Your task to perform on an android device: Open Chrome and go to settings Image 0: 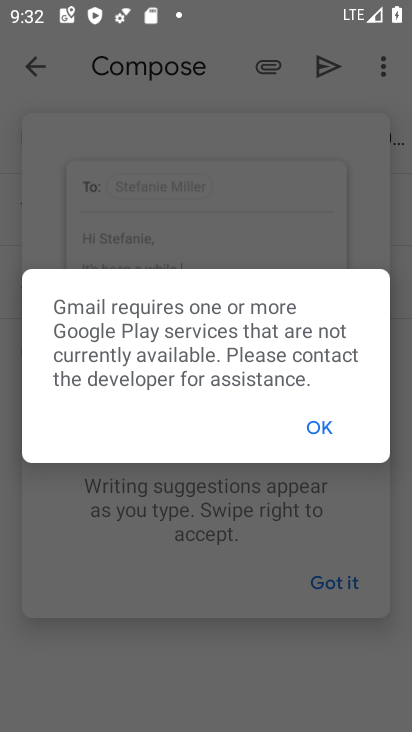
Step 0: click (318, 423)
Your task to perform on an android device: Open Chrome and go to settings Image 1: 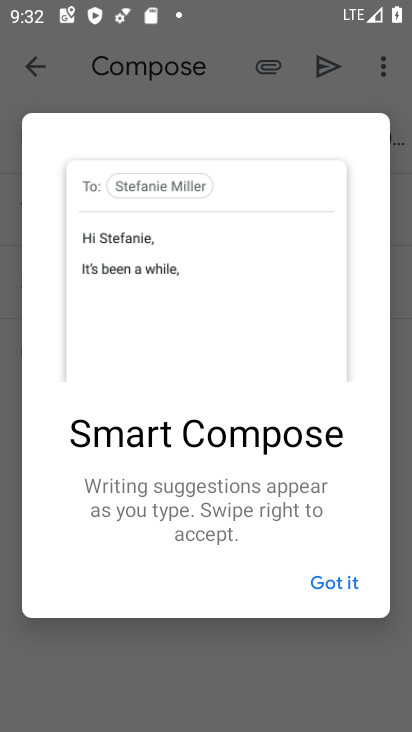
Step 1: press home button
Your task to perform on an android device: Open Chrome and go to settings Image 2: 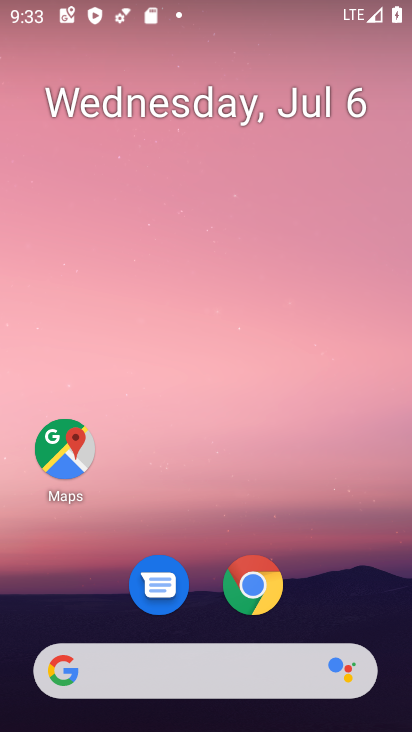
Step 2: click (262, 582)
Your task to perform on an android device: Open Chrome and go to settings Image 3: 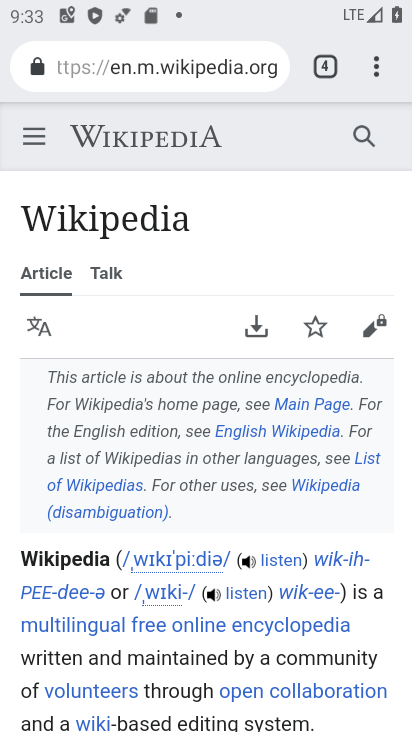
Step 3: click (372, 58)
Your task to perform on an android device: Open Chrome and go to settings Image 4: 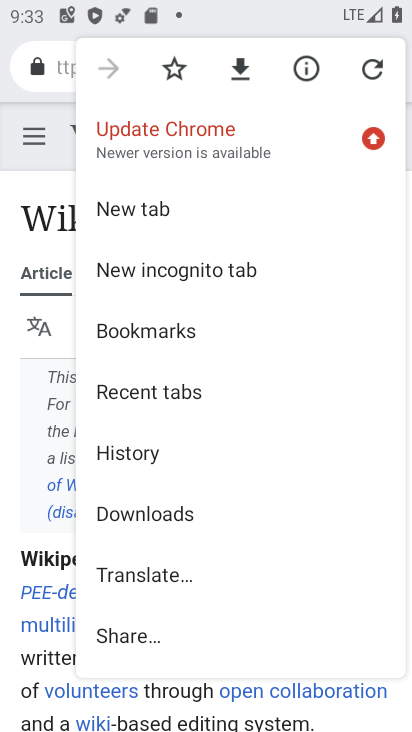
Step 4: drag from (271, 509) to (296, 106)
Your task to perform on an android device: Open Chrome and go to settings Image 5: 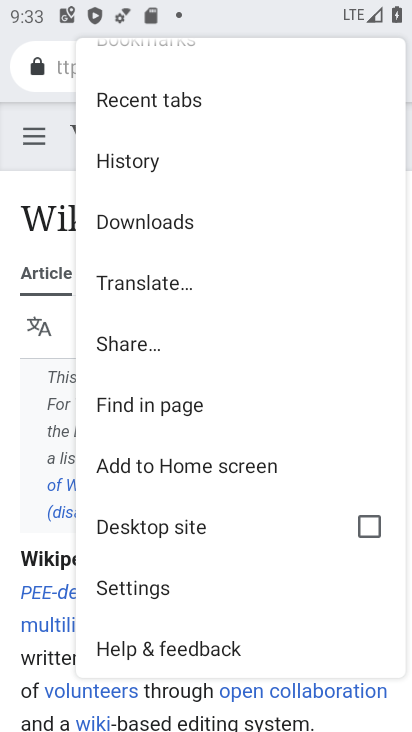
Step 5: click (152, 582)
Your task to perform on an android device: Open Chrome and go to settings Image 6: 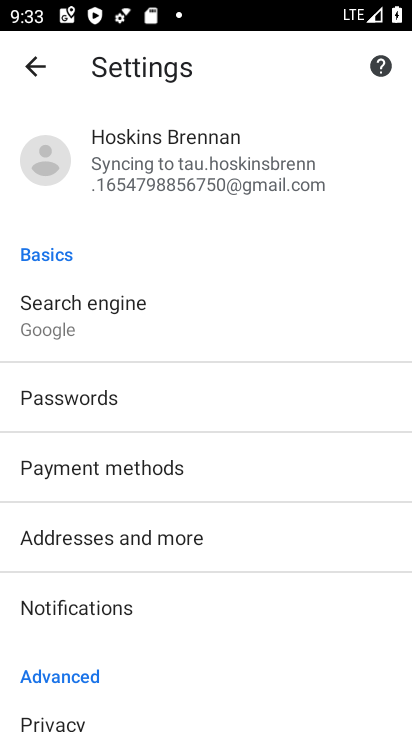
Step 6: task complete